Your task to perform on an android device: Open the map Image 0: 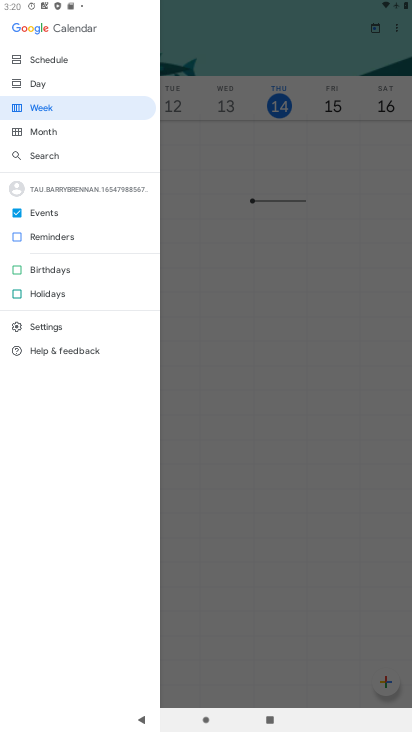
Step 0: press home button
Your task to perform on an android device: Open the map Image 1: 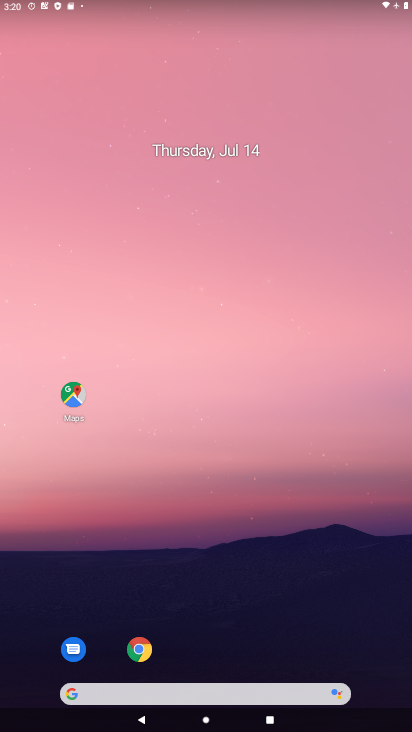
Step 1: drag from (193, 585) to (226, 64)
Your task to perform on an android device: Open the map Image 2: 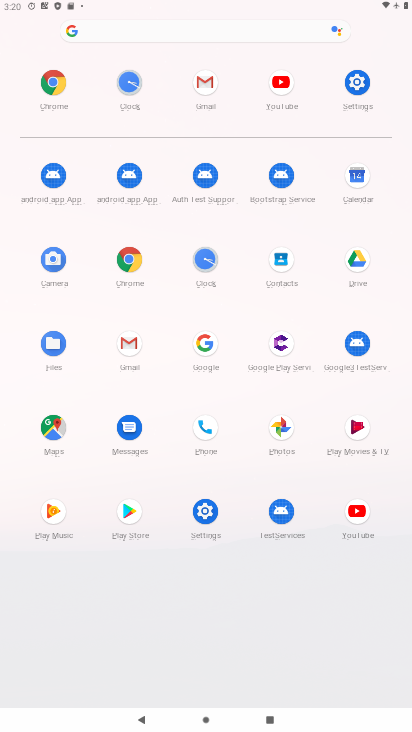
Step 2: click (54, 426)
Your task to perform on an android device: Open the map Image 3: 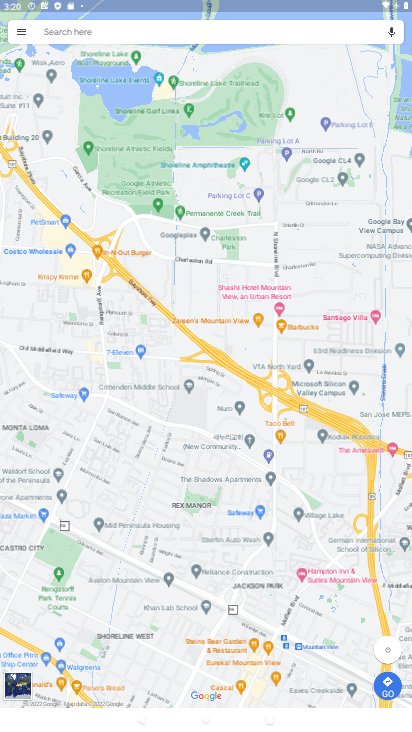
Step 3: task complete